Your task to perform on an android device: change your default location settings in chrome Image 0: 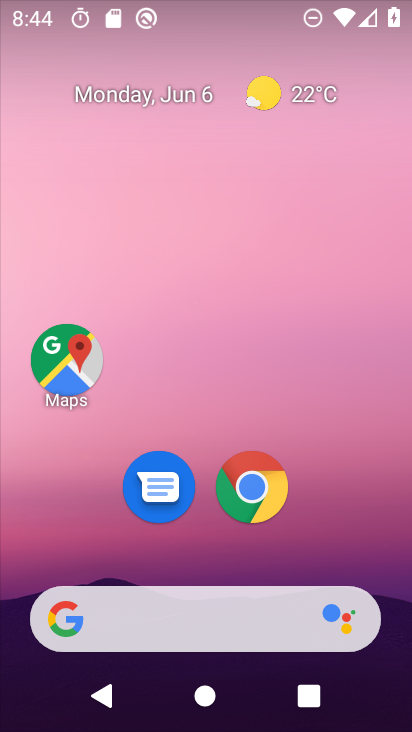
Step 0: drag from (398, 633) to (240, 7)
Your task to perform on an android device: change your default location settings in chrome Image 1: 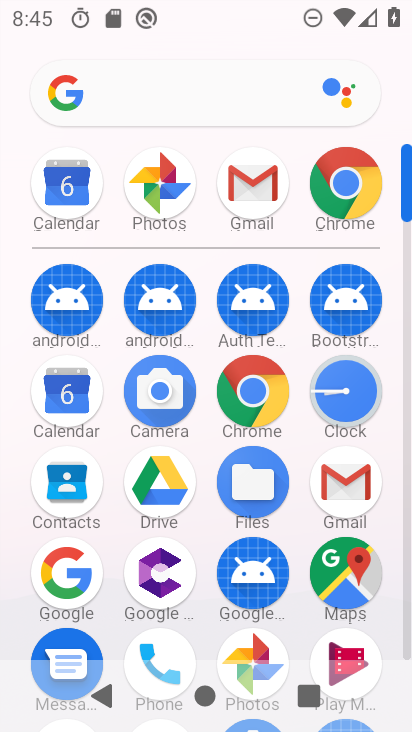
Step 1: click (237, 403)
Your task to perform on an android device: change your default location settings in chrome Image 2: 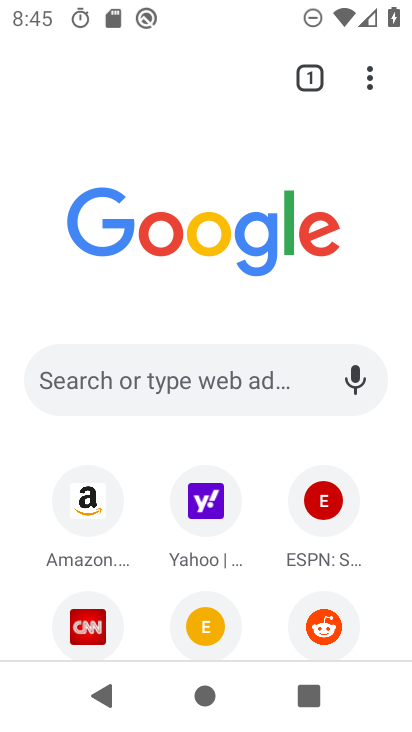
Step 2: click (372, 78)
Your task to perform on an android device: change your default location settings in chrome Image 3: 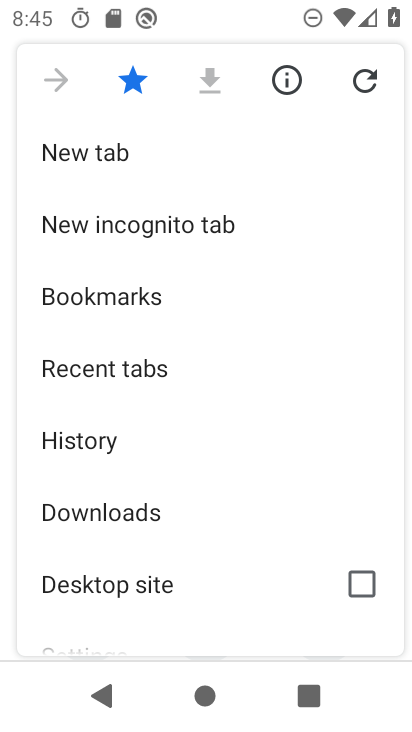
Step 3: drag from (127, 549) to (157, 161)
Your task to perform on an android device: change your default location settings in chrome Image 4: 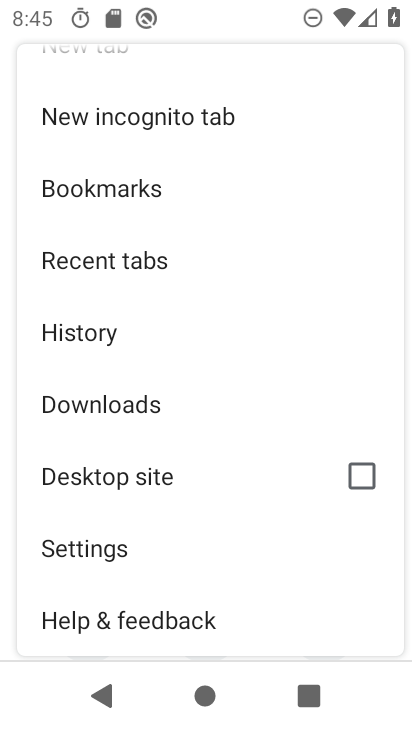
Step 4: click (90, 570)
Your task to perform on an android device: change your default location settings in chrome Image 5: 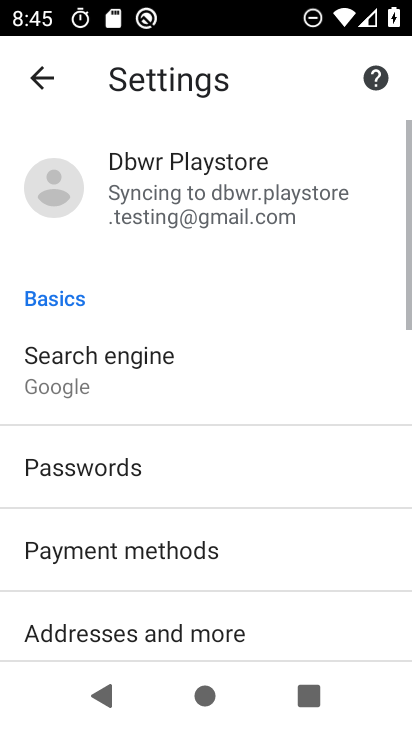
Step 5: click (121, 394)
Your task to perform on an android device: change your default location settings in chrome Image 6: 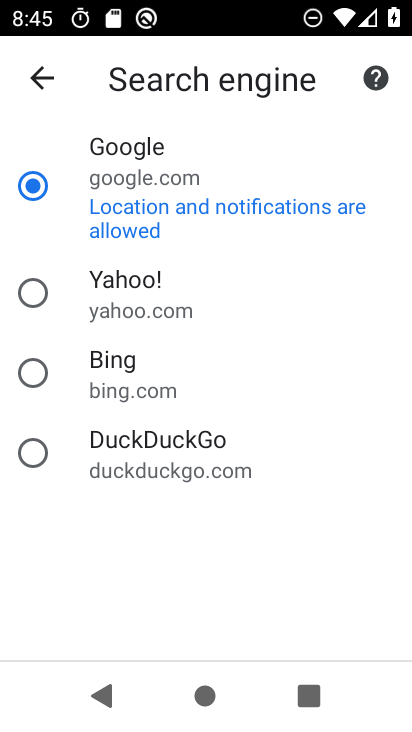
Step 6: click (155, 372)
Your task to perform on an android device: change your default location settings in chrome Image 7: 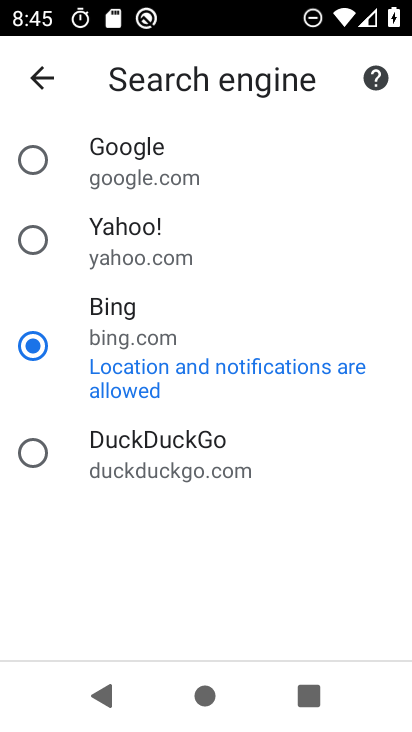
Step 7: task complete